Your task to perform on an android device: Open accessibility settings Image 0: 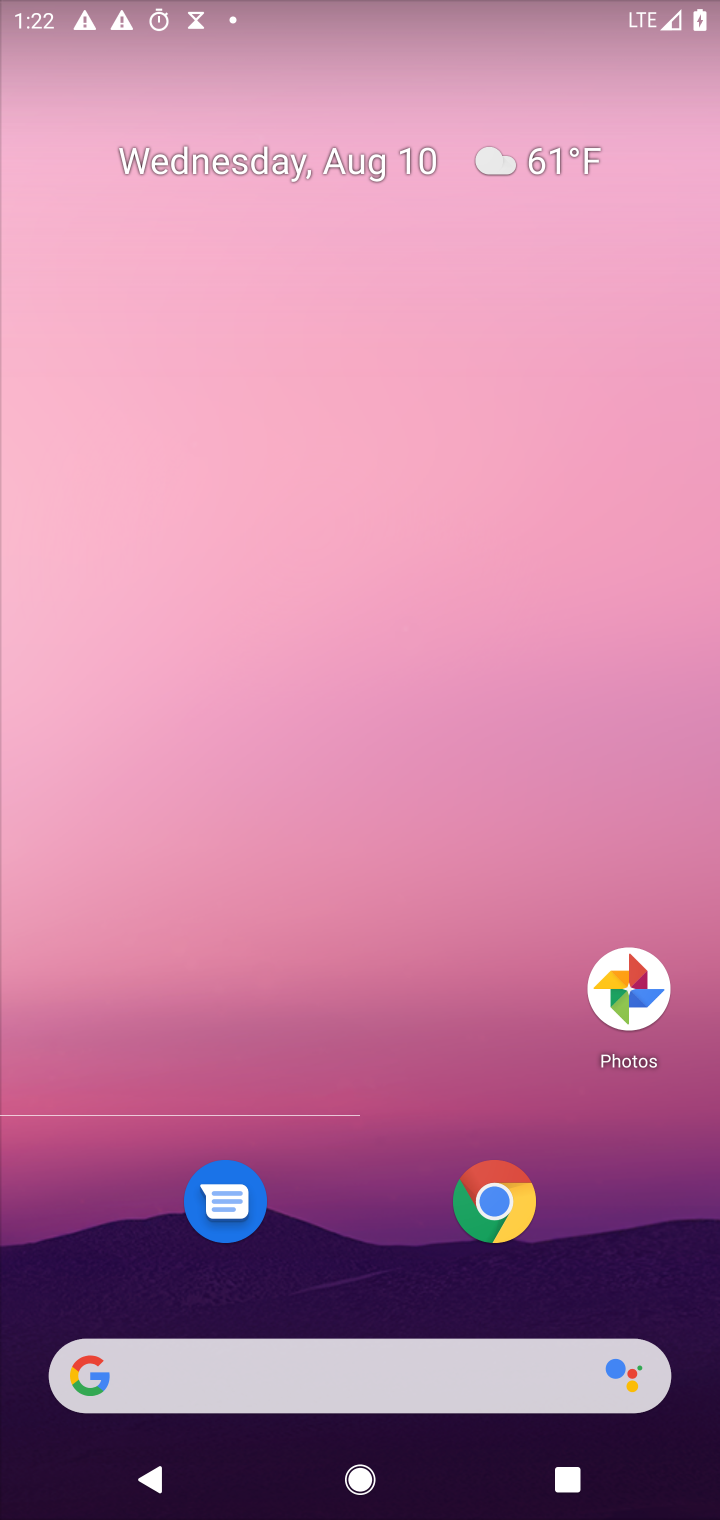
Step 0: press home button
Your task to perform on an android device: Open accessibility settings Image 1: 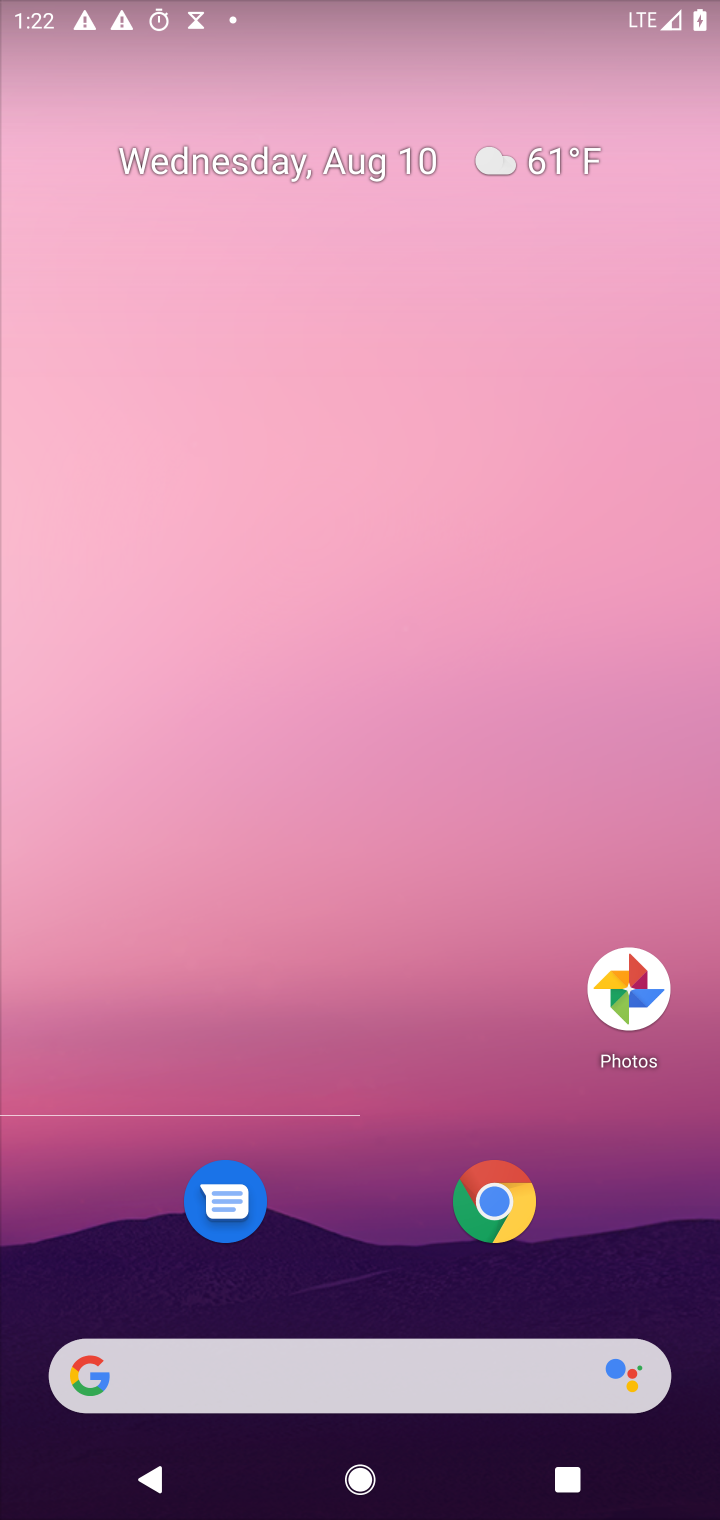
Step 1: drag from (364, 1303) to (677, 621)
Your task to perform on an android device: Open accessibility settings Image 2: 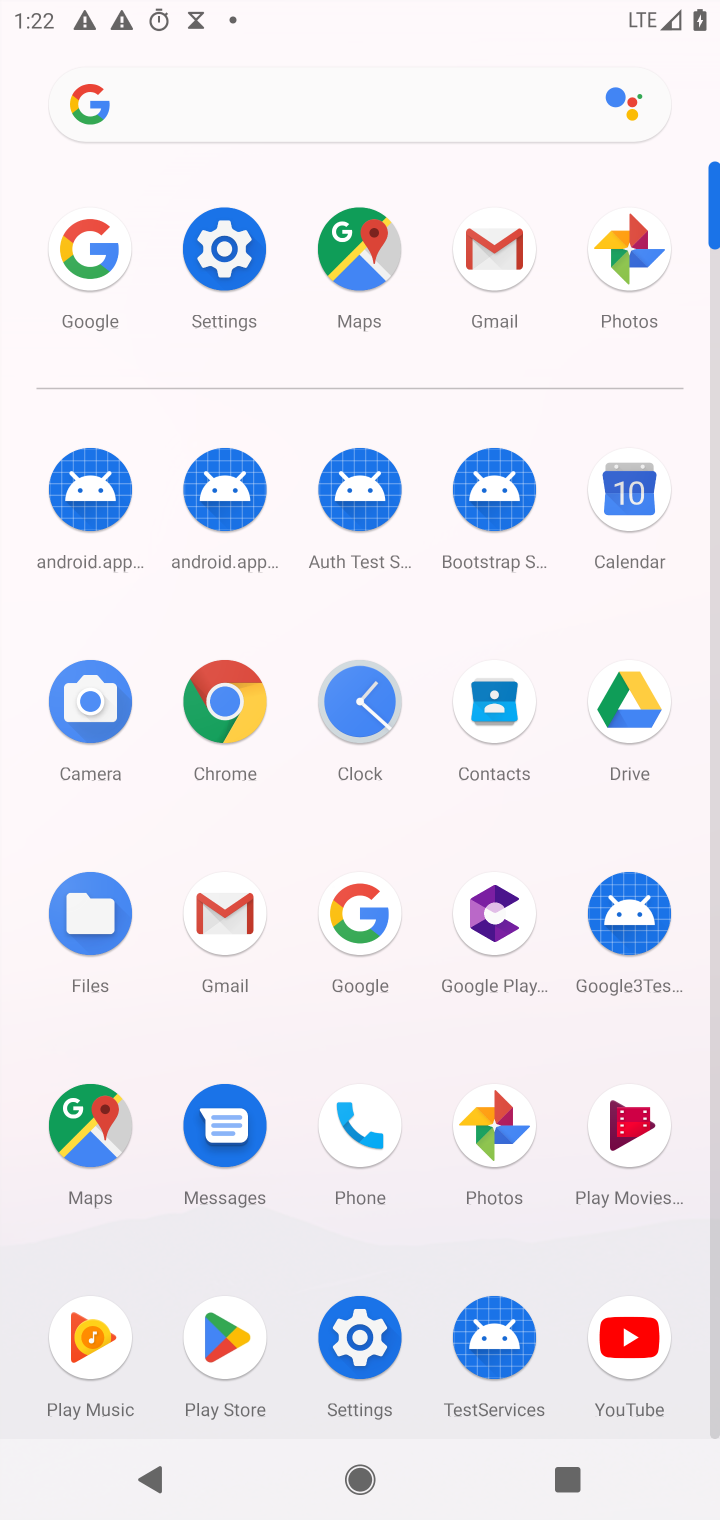
Step 2: click (232, 248)
Your task to perform on an android device: Open accessibility settings Image 3: 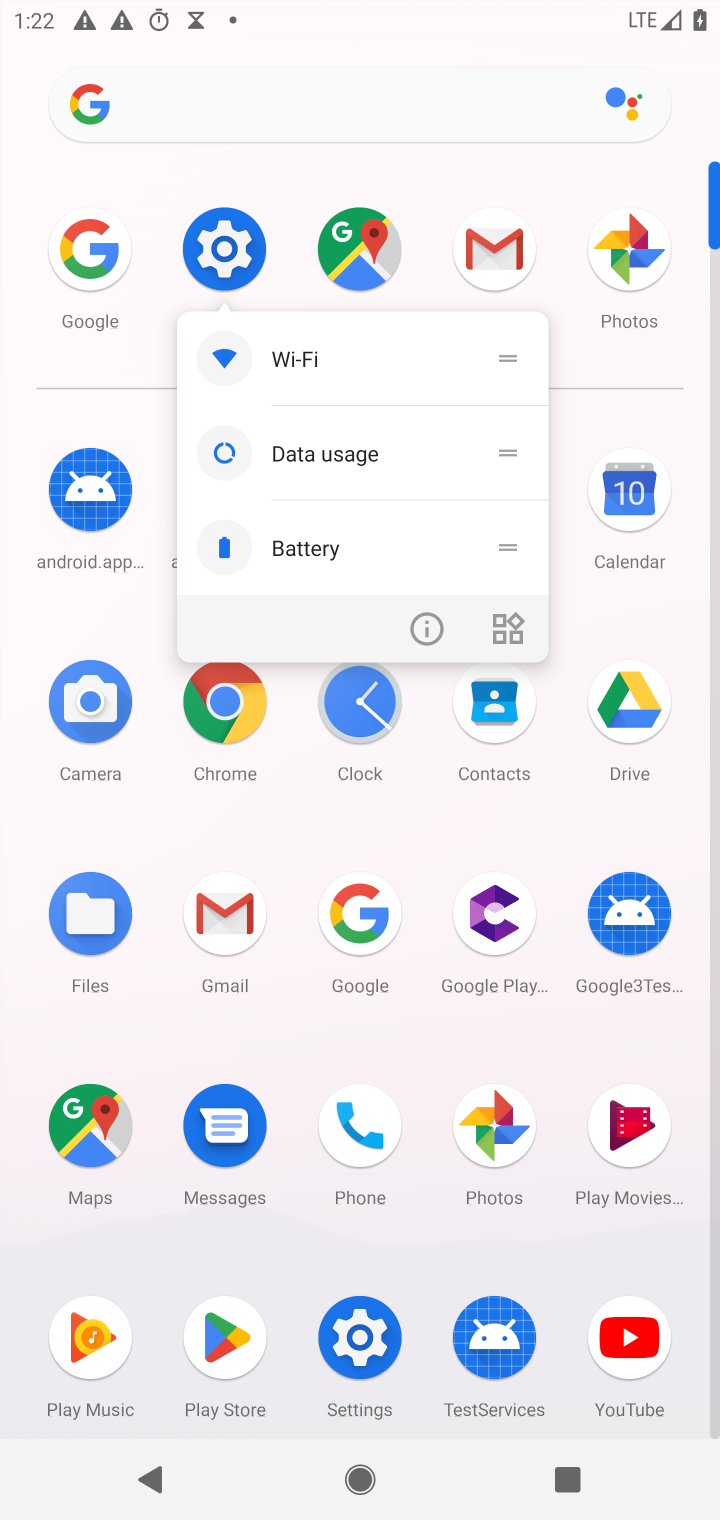
Step 3: click (213, 259)
Your task to perform on an android device: Open accessibility settings Image 4: 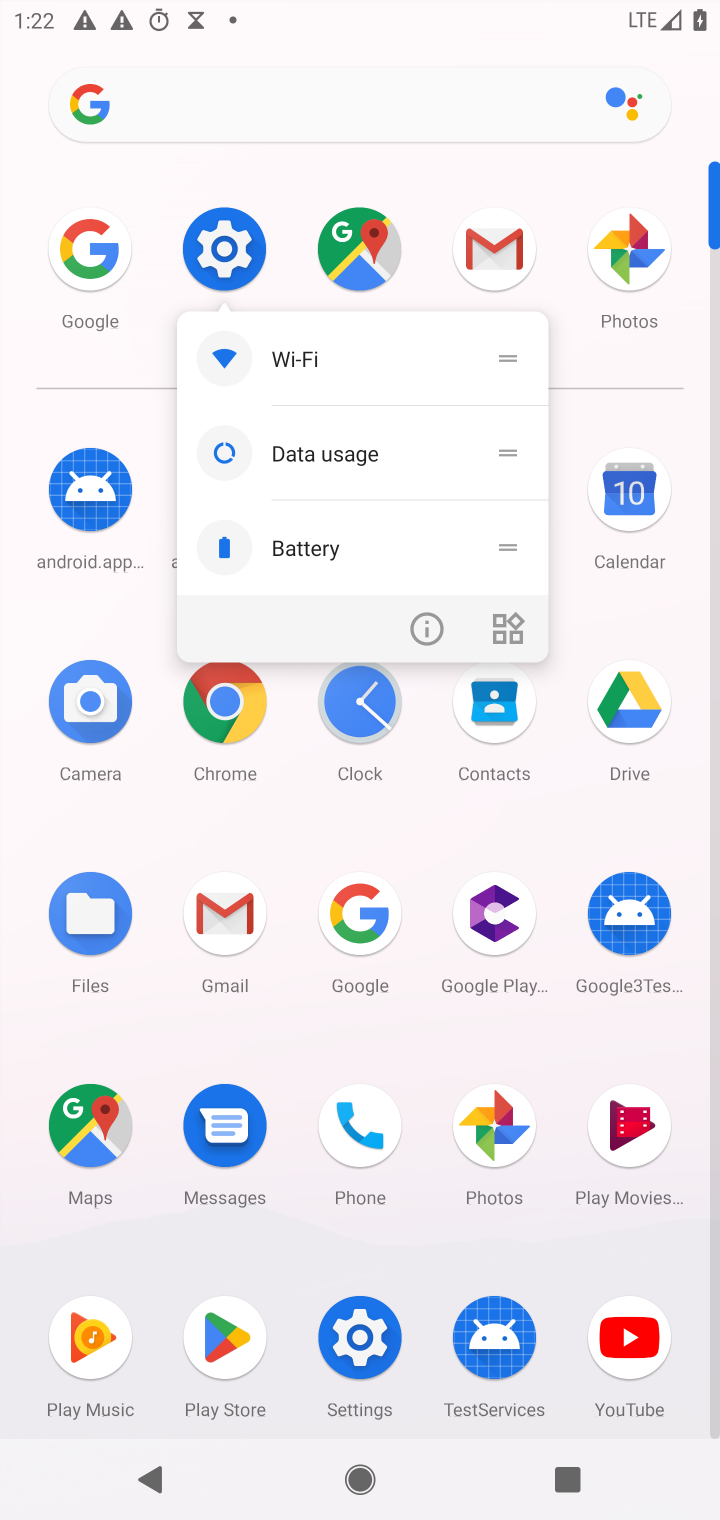
Step 4: click (217, 246)
Your task to perform on an android device: Open accessibility settings Image 5: 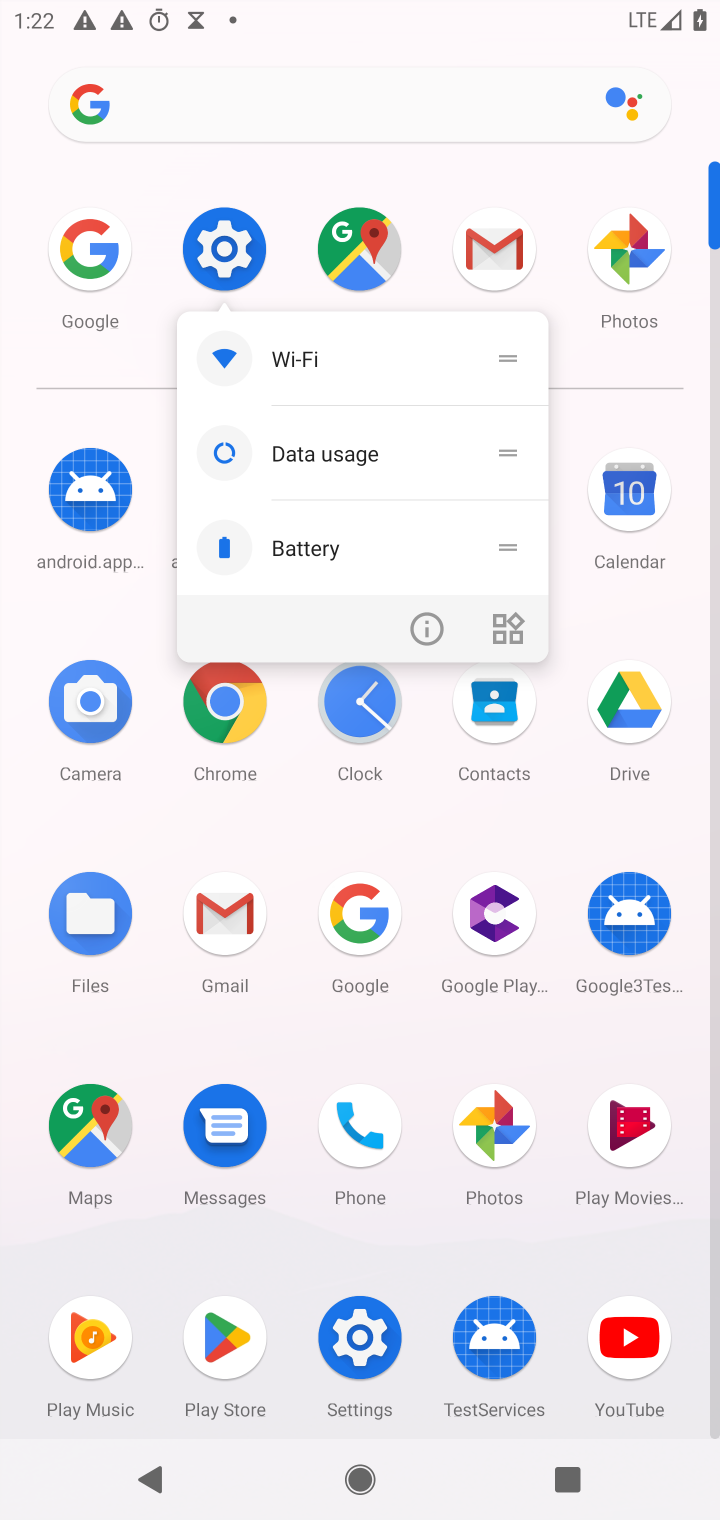
Step 5: click (217, 246)
Your task to perform on an android device: Open accessibility settings Image 6: 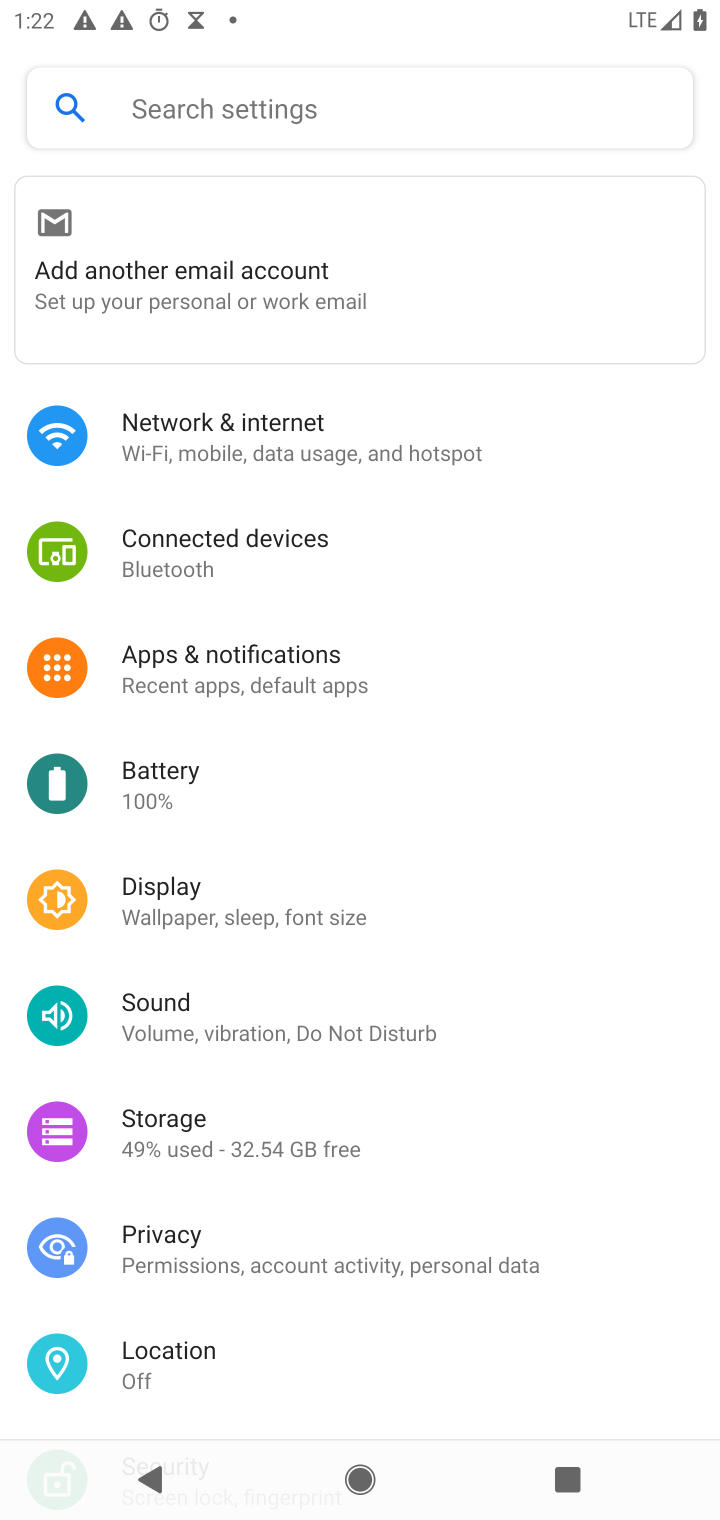
Step 6: drag from (300, 1366) to (293, 355)
Your task to perform on an android device: Open accessibility settings Image 7: 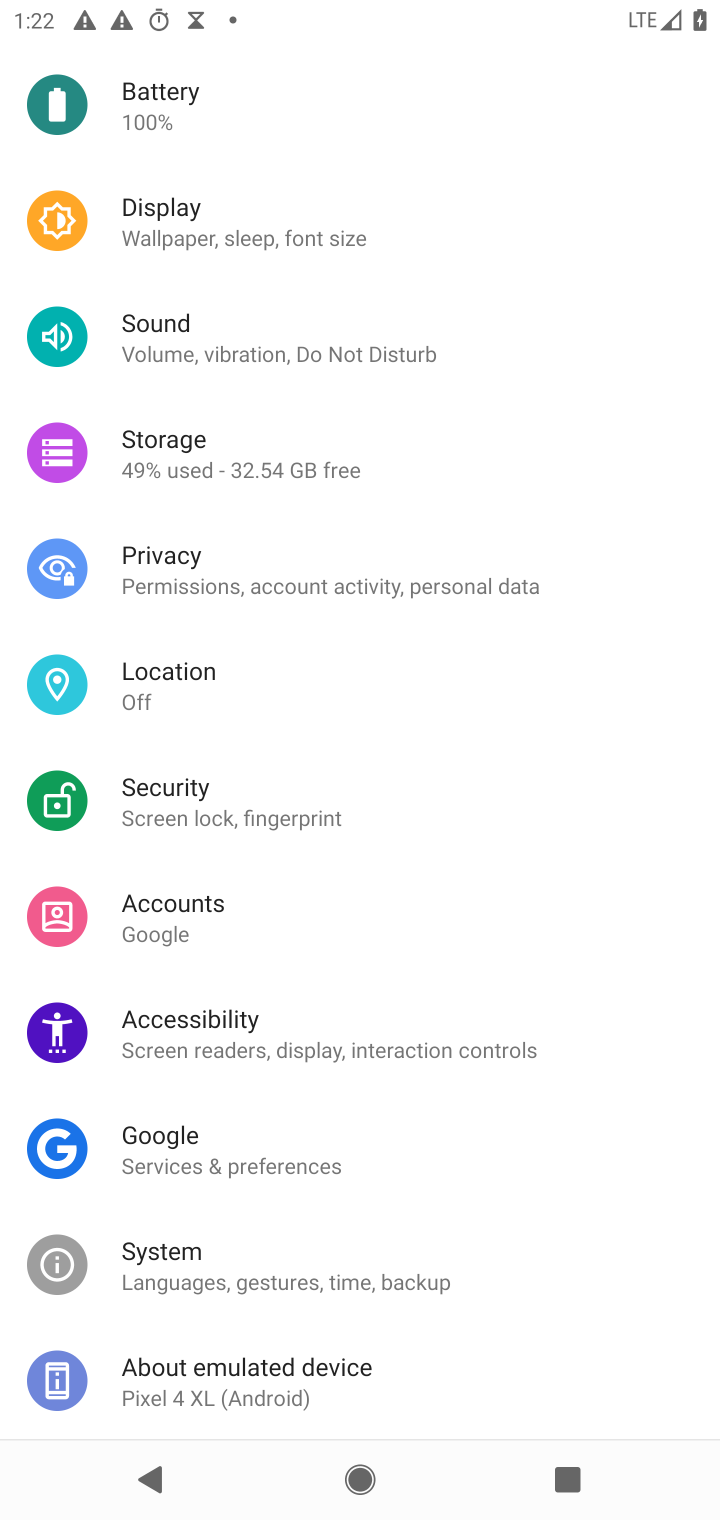
Step 7: click (241, 1045)
Your task to perform on an android device: Open accessibility settings Image 8: 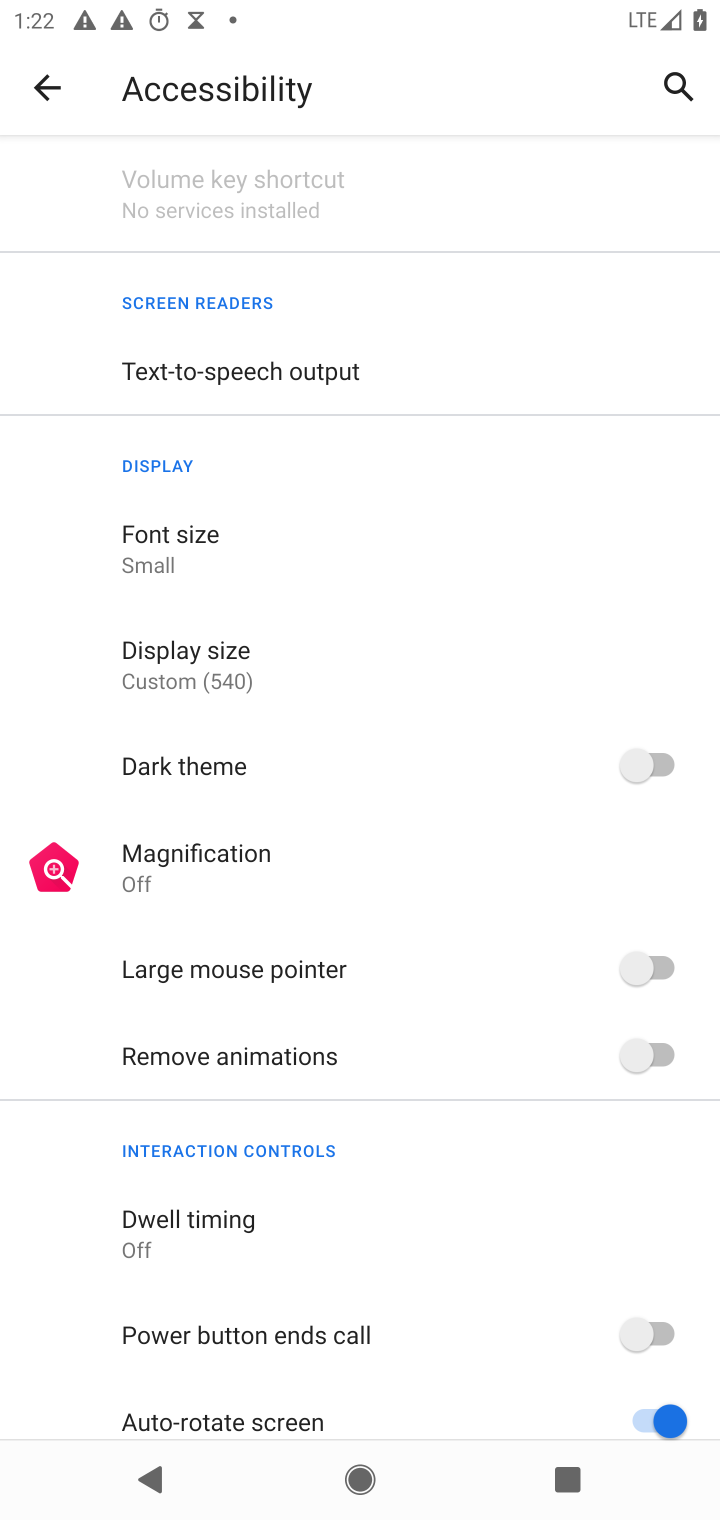
Step 8: task complete